Your task to perform on an android device: Open Wikipedia Image 0: 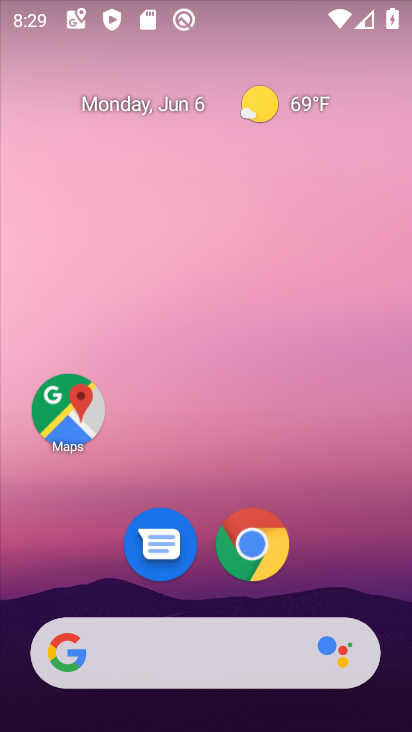
Step 0: drag from (216, 432) to (230, 171)
Your task to perform on an android device: Open Wikipedia Image 1: 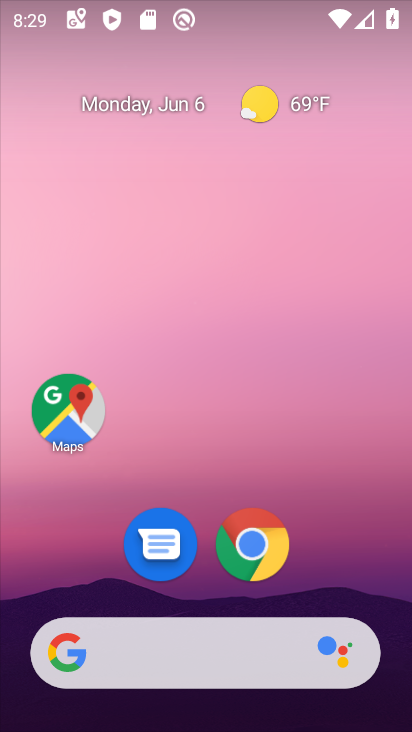
Step 1: drag from (214, 593) to (223, 117)
Your task to perform on an android device: Open Wikipedia Image 2: 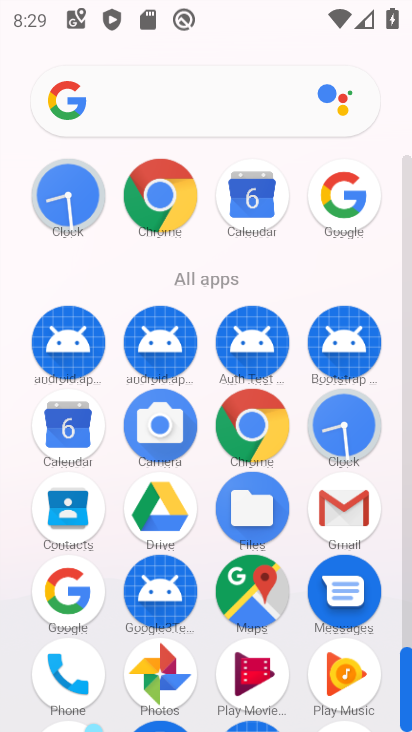
Step 2: click (166, 192)
Your task to perform on an android device: Open Wikipedia Image 3: 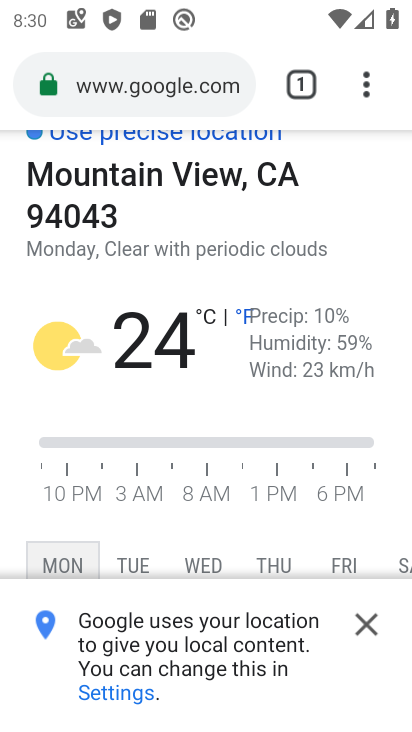
Step 3: click (199, 91)
Your task to perform on an android device: Open Wikipedia Image 4: 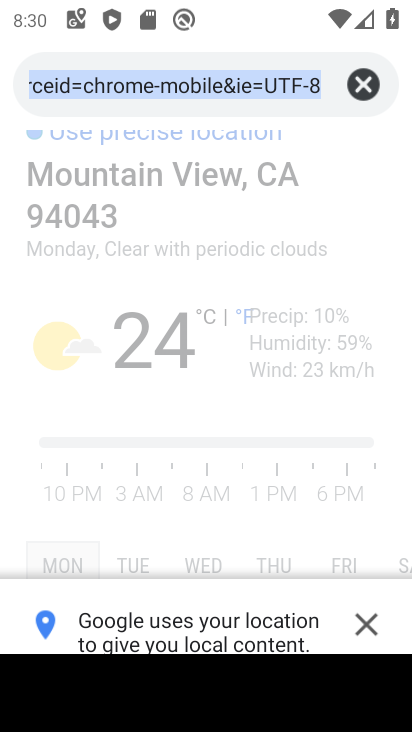
Step 4: type "wikipedia"
Your task to perform on an android device: Open Wikipedia Image 5: 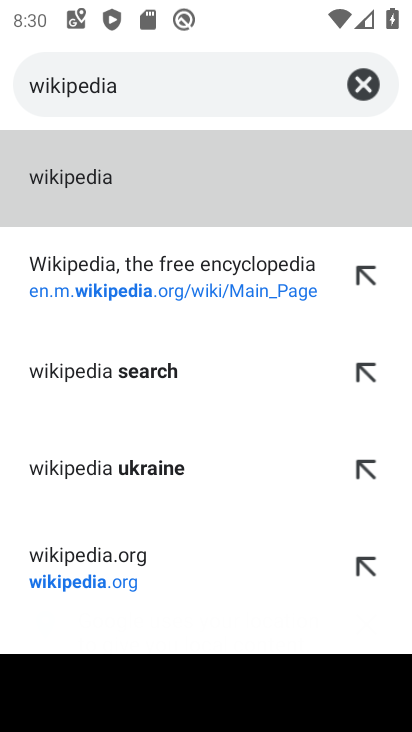
Step 5: click (185, 188)
Your task to perform on an android device: Open Wikipedia Image 6: 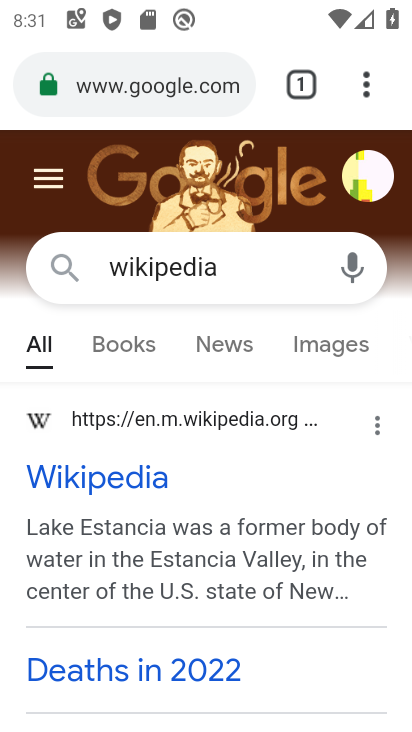
Step 6: task complete